Your task to perform on an android device: toggle priority inbox in the gmail app Image 0: 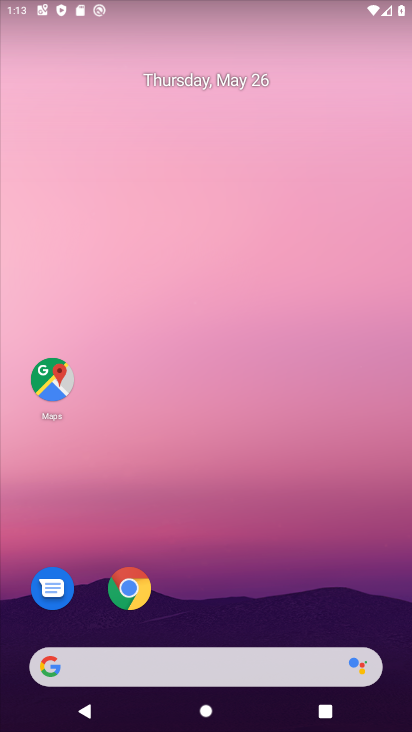
Step 0: drag from (388, 716) to (247, 232)
Your task to perform on an android device: toggle priority inbox in the gmail app Image 1: 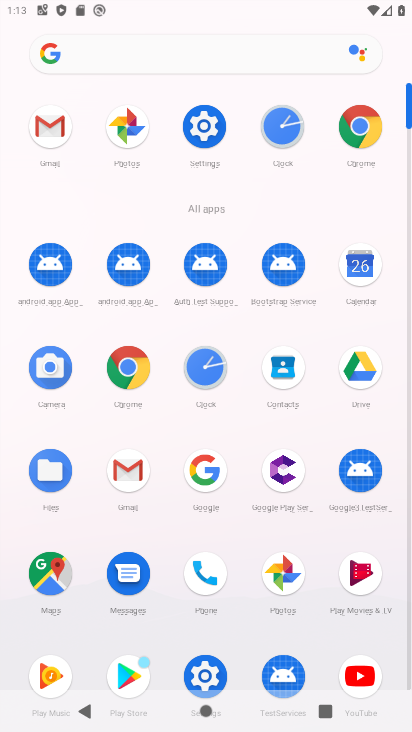
Step 1: click (114, 451)
Your task to perform on an android device: toggle priority inbox in the gmail app Image 2: 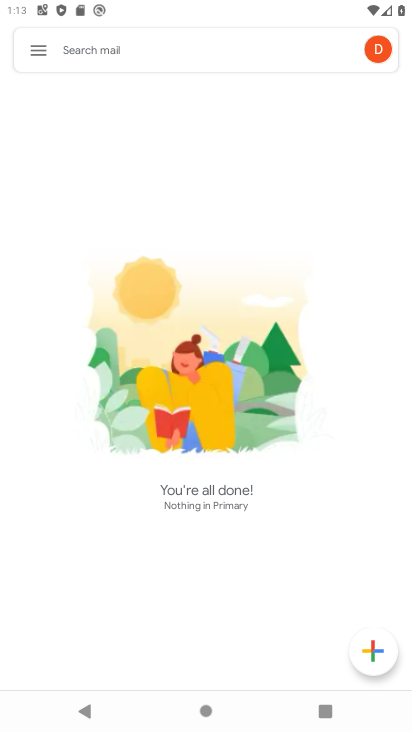
Step 2: click (42, 56)
Your task to perform on an android device: toggle priority inbox in the gmail app Image 3: 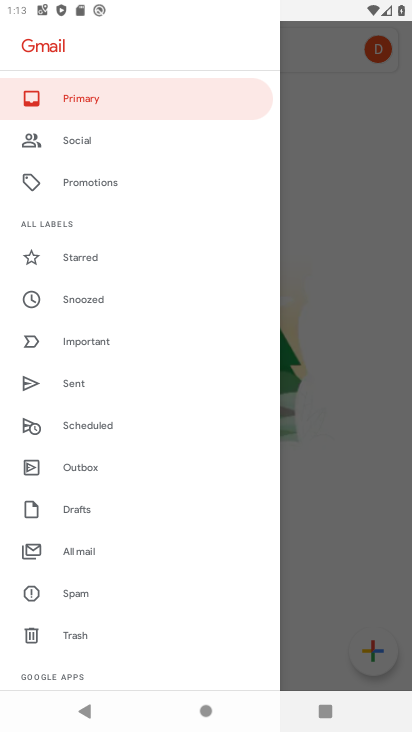
Step 3: drag from (168, 663) to (169, 389)
Your task to perform on an android device: toggle priority inbox in the gmail app Image 4: 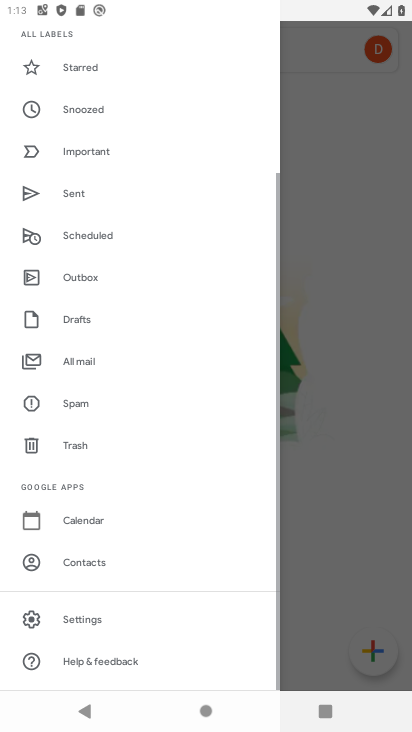
Step 4: click (92, 622)
Your task to perform on an android device: toggle priority inbox in the gmail app Image 5: 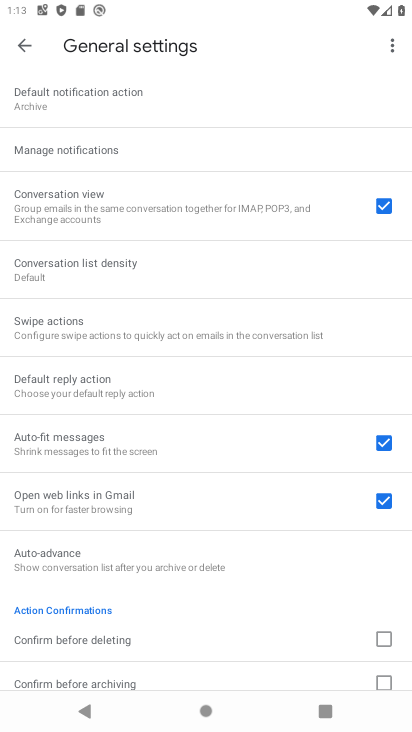
Step 5: click (21, 48)
Your task to perform on an android device: toggle priority inbox in the gmail app Image 6: 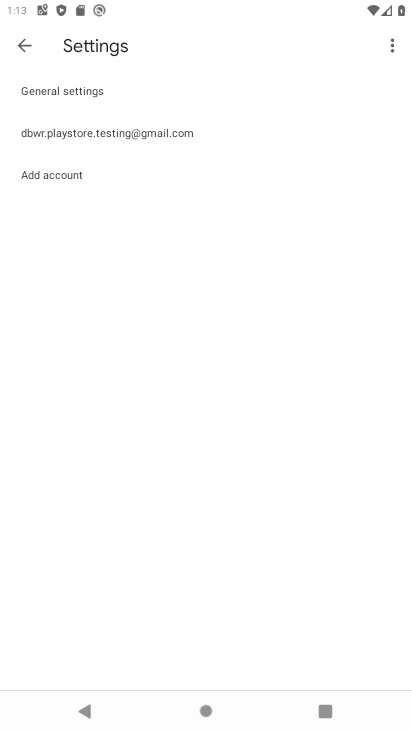
Step 6: click (69, 129)
Your task to perform on an android device: toggle priority inbox in the gmail app Image 7: 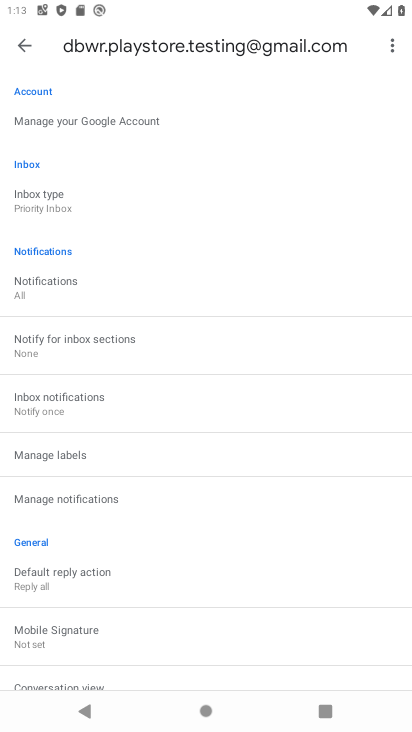
Step 7: click (21, 200)
Your task to perform on an android device: toggle priority inbox in the gmail app Image 8: 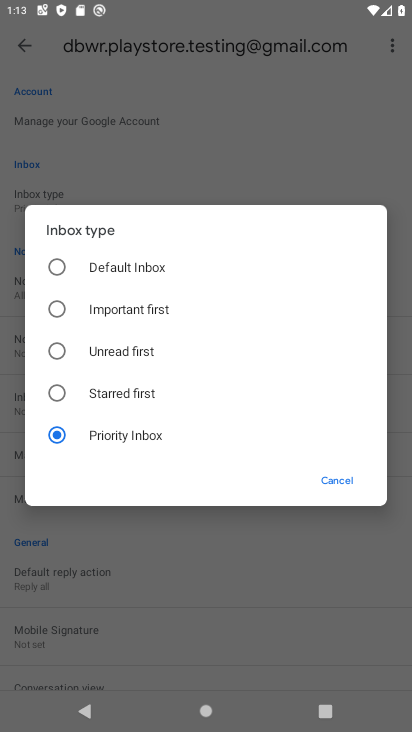
Step 8: click (58, 273)
Your task to perform on an android device: toggle priority inbox in the gmail app Image 9: 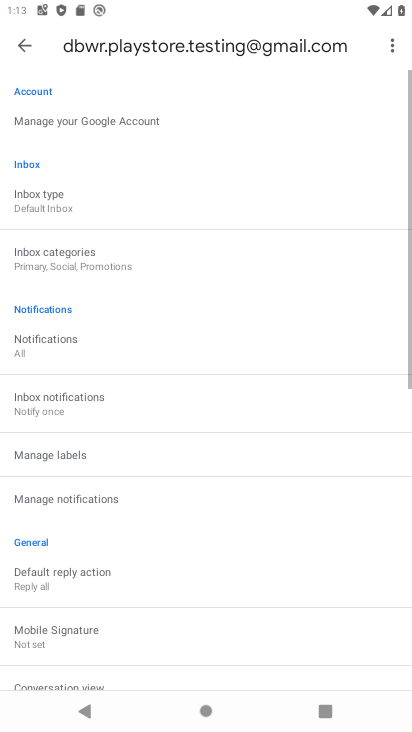
Step 9: task complete